Your task to perform on an android device: Search for Mexican restaurants on Maps Image 0: 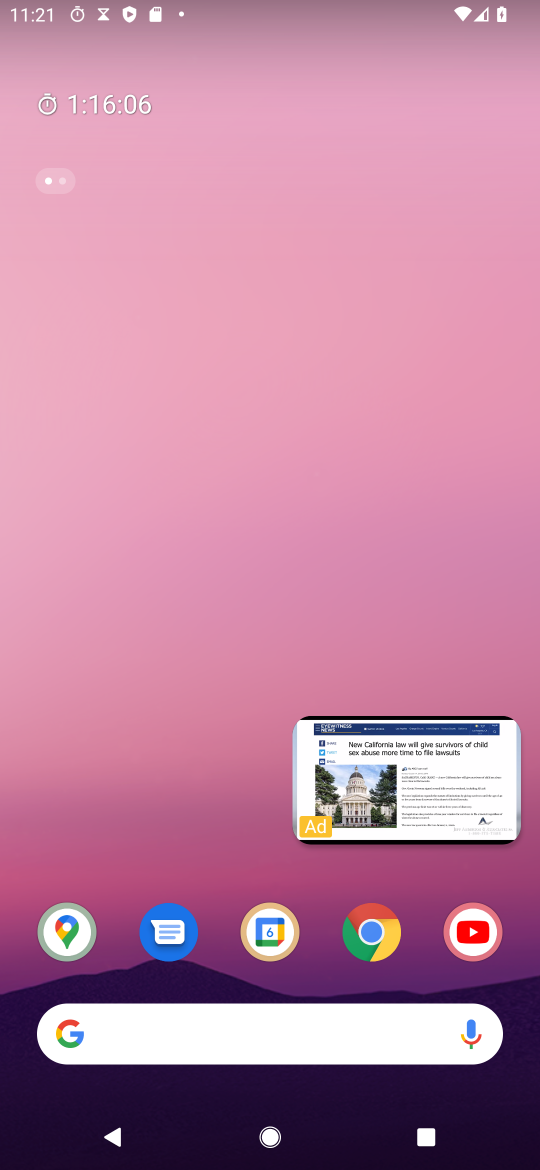
Step 0: click (82, 925)
Your task to perform on an android device: Search for Mexican restaurants on Maps Image 1: 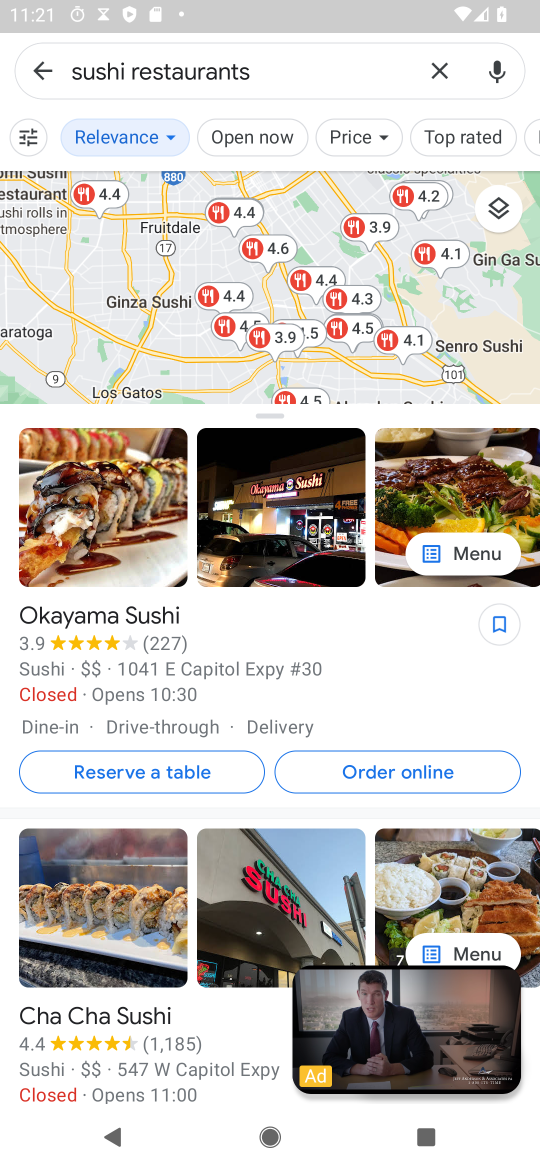
Step 1: click (440, 72)
Your task to perform on an android device: Search for Mexican restaurants on Maps Image 2: 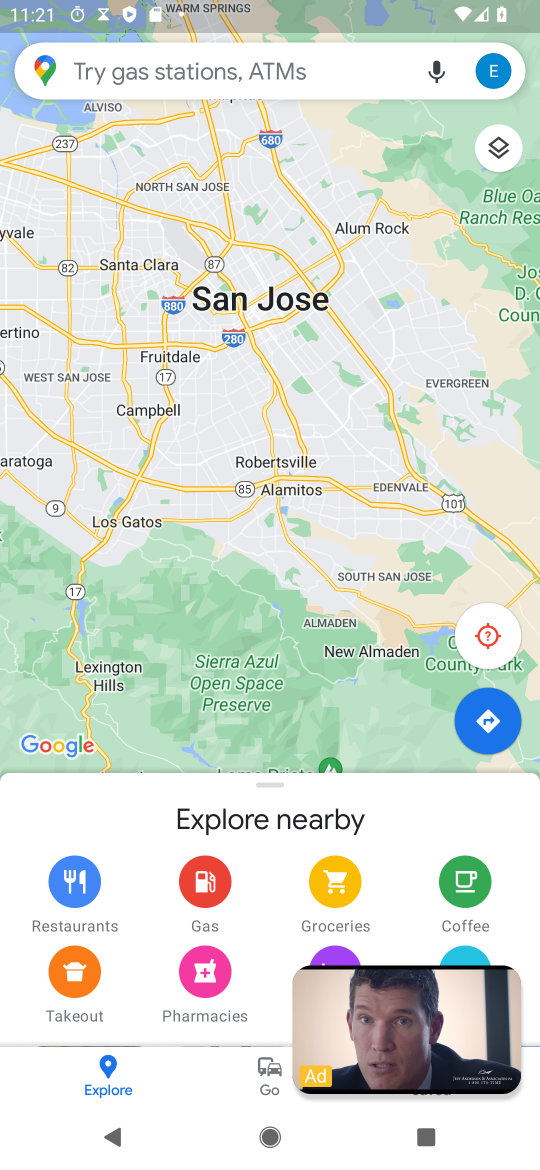
Step 2: click (321, 60)
Your task to perform on an android device: Search for Mexican restaurants on Maps Image 3: 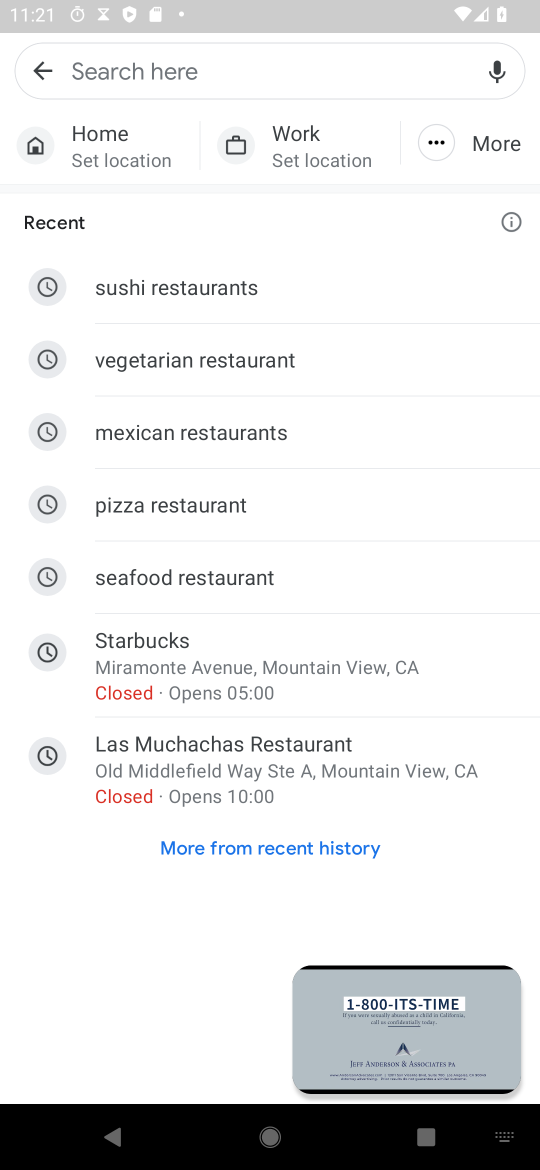
Step 3: click (303, 445)
Your task to perform on an android device: Search for Mexican restaurants on Maps Image 4: 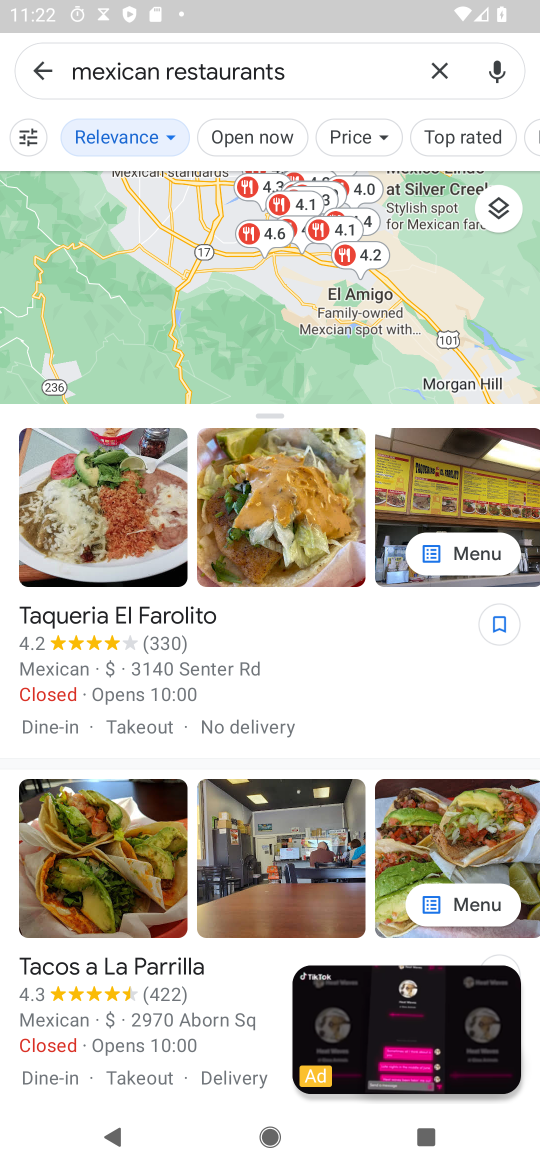
Step 4: task complete